Your task to perform on an android device: turn off priority inbox in the gmail app Image 0: 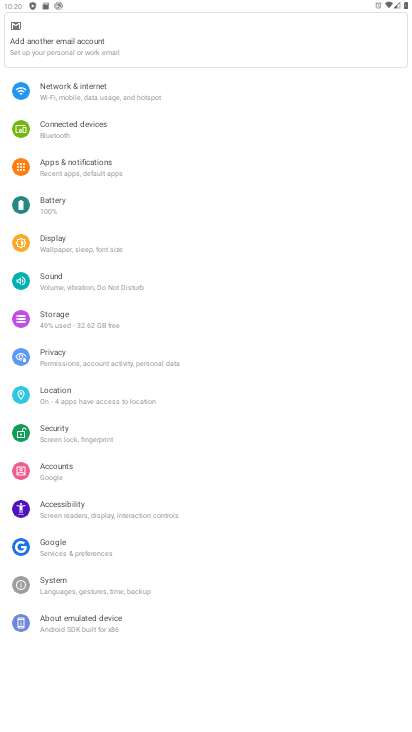
Step 0: press home button
Your task to perform on an android device: turn off priority inbox in the gmail app Image 1: 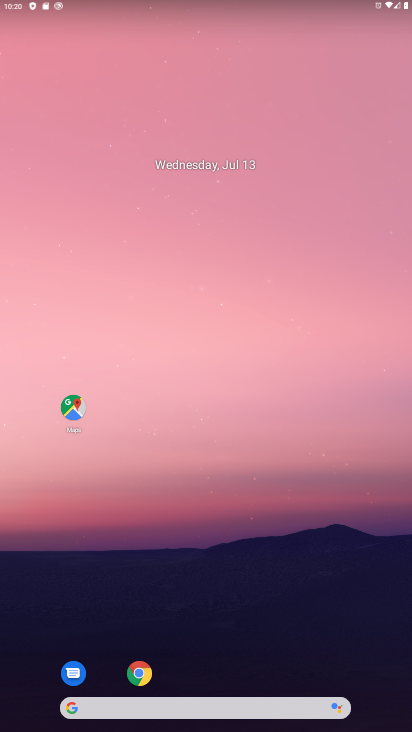
Step 1: drag from (208, 631) to (242, 184)
Your task to perform on an android device: turn off priority inbox in the gmail app Image 2: 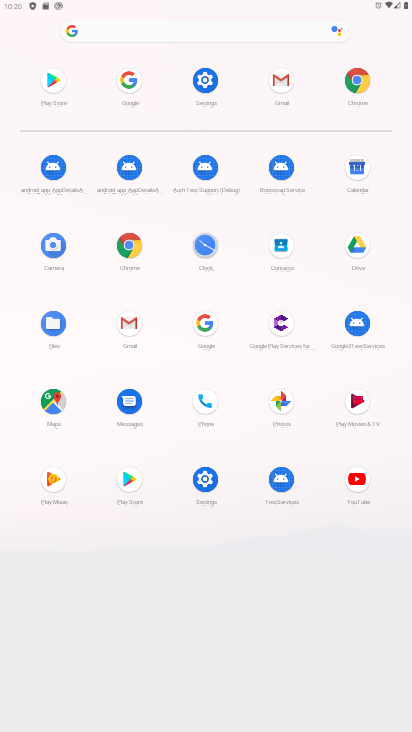
Step 2: click (126, 317)
Your task to perform on an android device: turn off priority inbox in the gmail app Image 3: 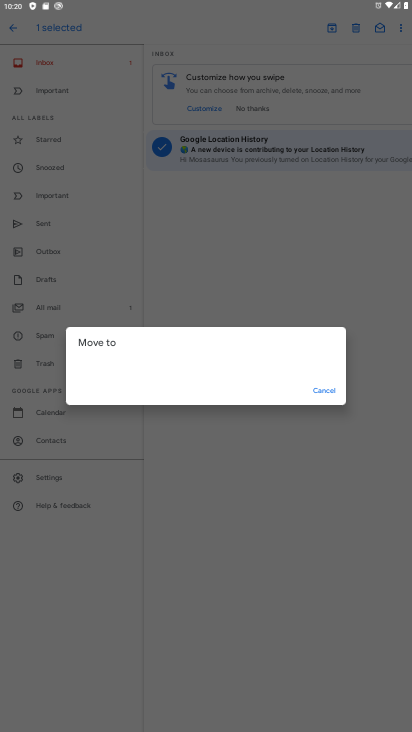
Step 3: click (330, 390)
Your task to perform on an android device: turn off priority inbox in the gmail app Image 4: 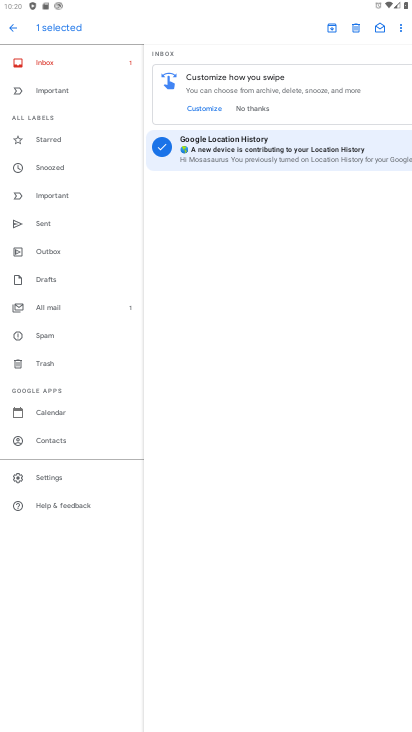
Step 4: click (51, 479)
Your task to perform on an android device: turn off priority inbox in the gmail app Image 5: 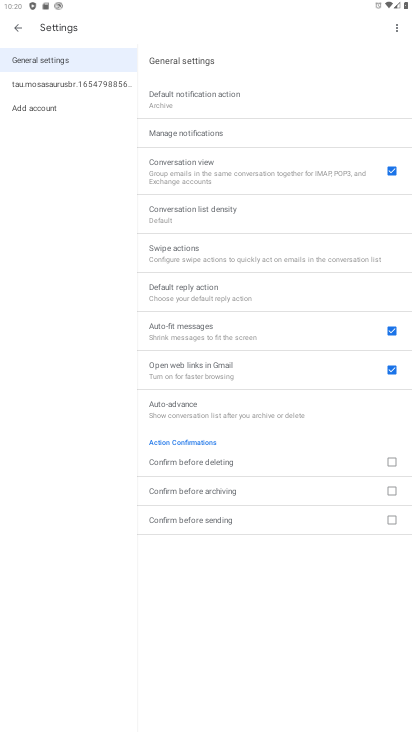
Step 5: click (66, 79)
Your task to perform on an android device: turn off priority inbox in the gmail app Image 6: 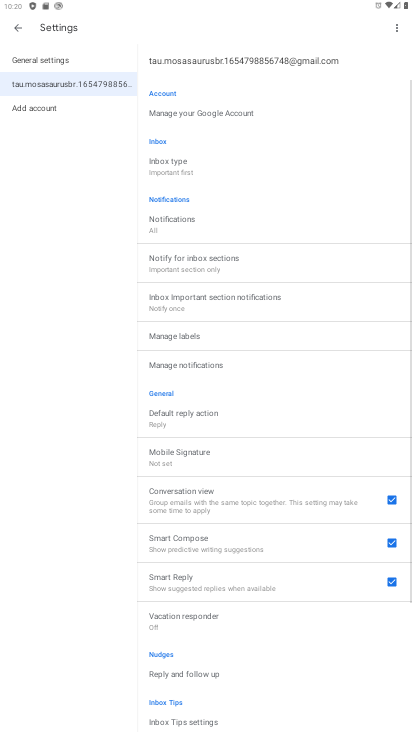
Step 6: click (177, 173)
Your task to perform on an android device: turn off priority inbox in the gmail app Image 7: 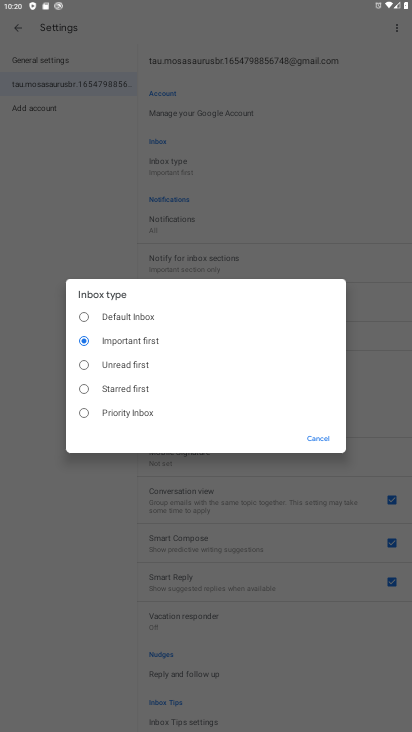
Step 7: click (322, 439)
Your task to perform on an android device: turn off priority inbox in the gmail app Image 8: 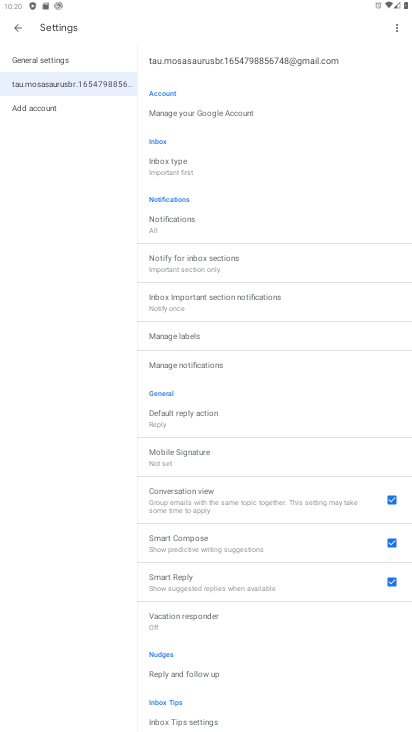
Step 8: task complete